Your task to perform on an android device: open device folders in google photos Image 0: 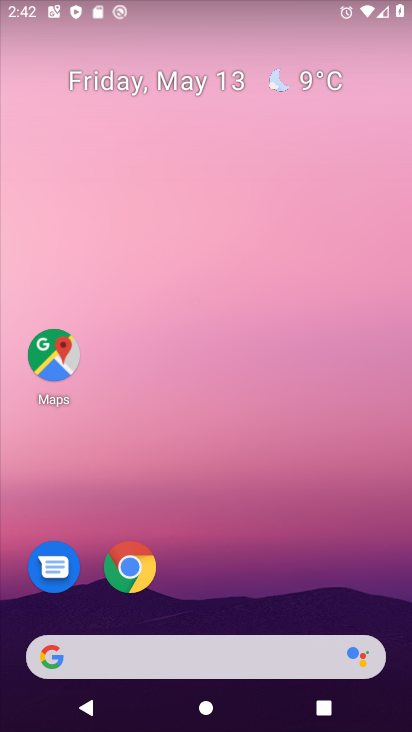
Step 0: drag from (232, 614) to (410, 0)
Your task to perform on an android device: open device folders in google photos Image 1: 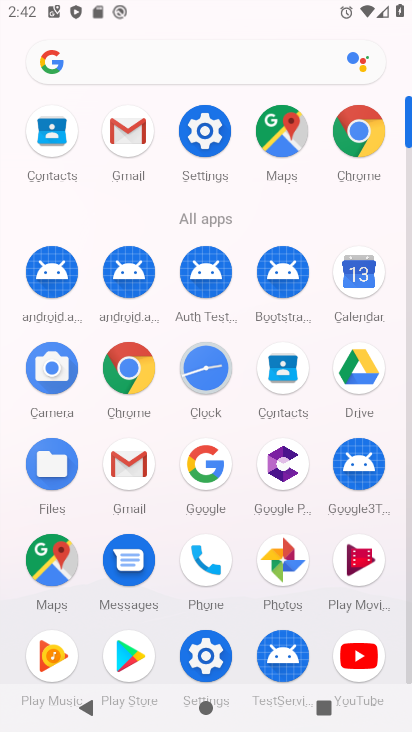
Step 1: click (283, 559)
Your task to perform on an android device: open device folders in google photos Image 2: 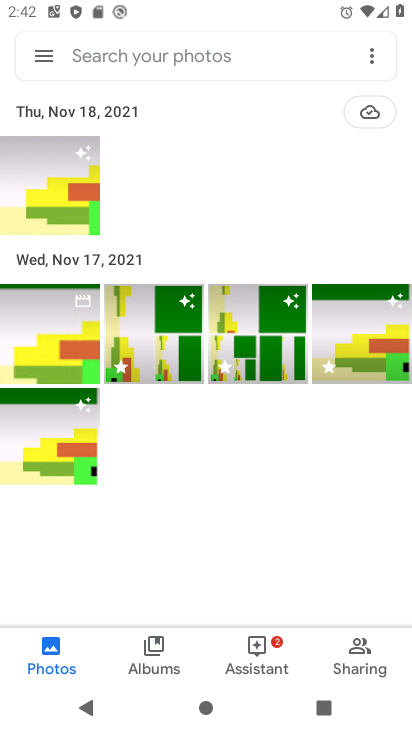
Step 2: click (41, 43)
Your task to perform on an android device: open device folders in google photos Image 3: 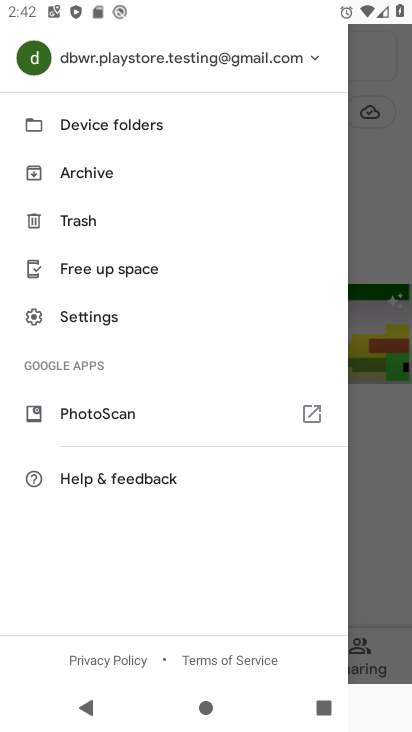
Step 3: click (153, 126)
Your task to perform on an android device: open device folders in google photos Image 4: 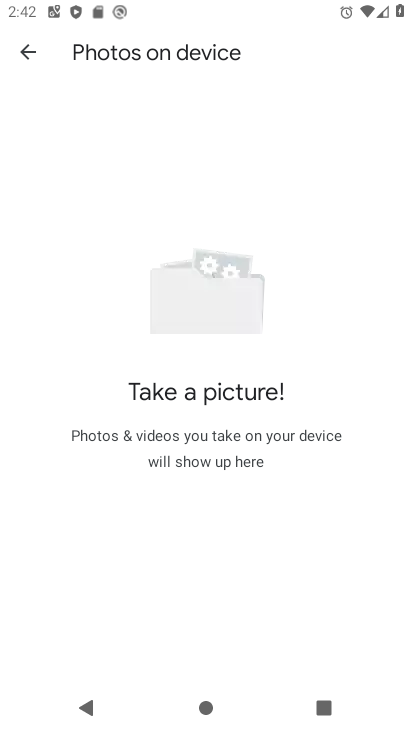
Step 4: task complete